Your task to perform on an android device: find photos in the google photos app Image 0: 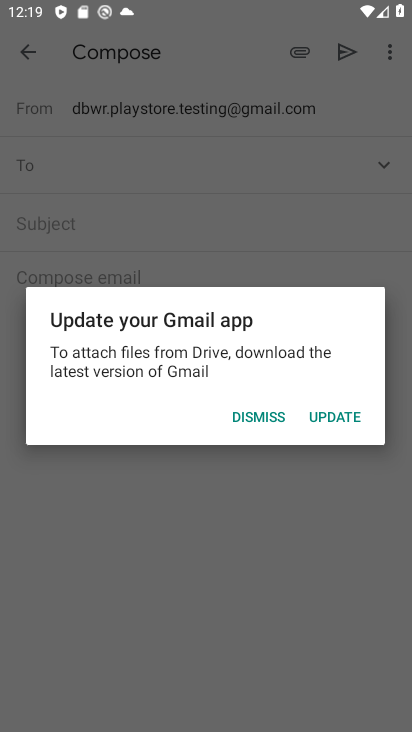
Step 0: press home button
Your task to perform on an android device: find photos in the google photos app Image 1: 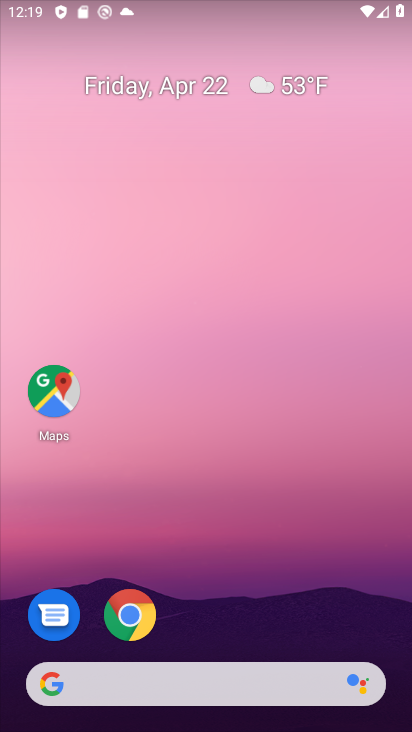
Step 1: drag from (363, 618) to (360, 57)
Your task to perform on an android device: find photos in the google photos app Image 2: 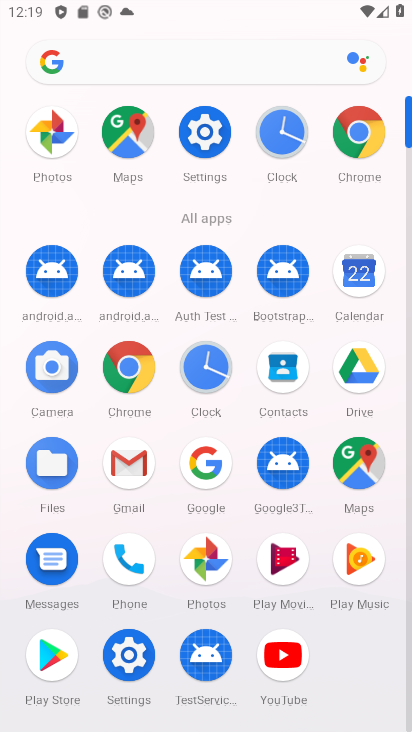
Step 2: click (51, 134)
Your task to perform on an android device: find photos in the google photos app Image 3: 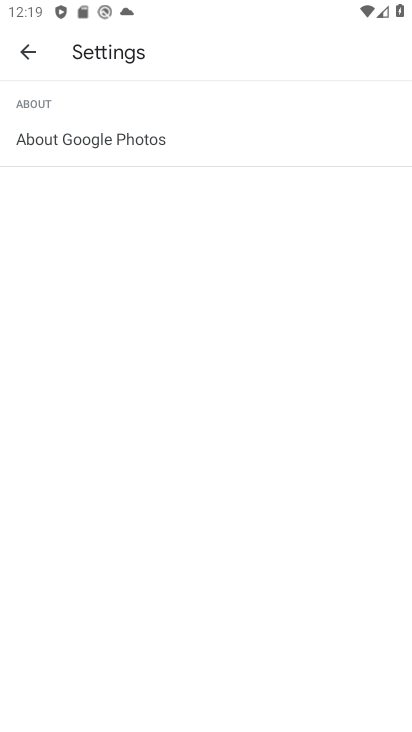
Step 3: click (30, 59)
Your task to perform on an android device: find photos in the google photos app Image 4: 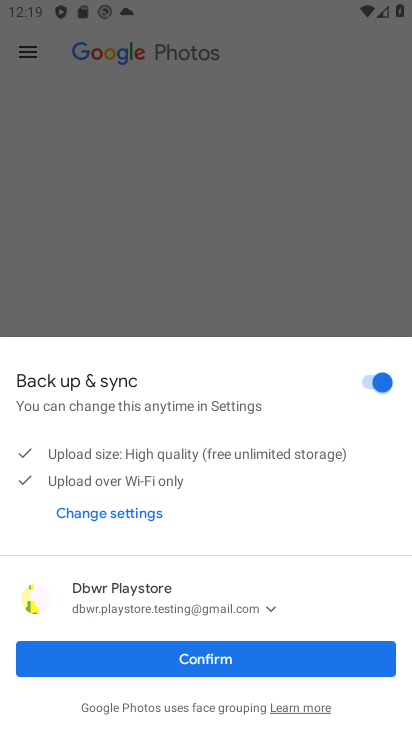
Step 4: click (220, 653)
Your task to perform on an android device: find photos in the google photos app Image 5: 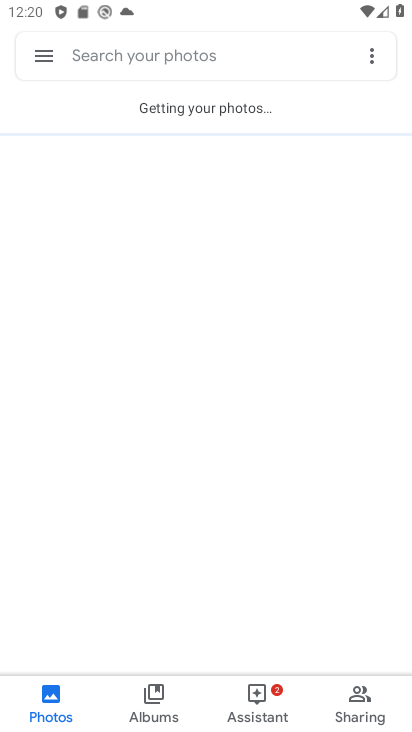
Step 5: task complete